Your task to perform on an android device: turn off smart reply in the gmail app Image 0: 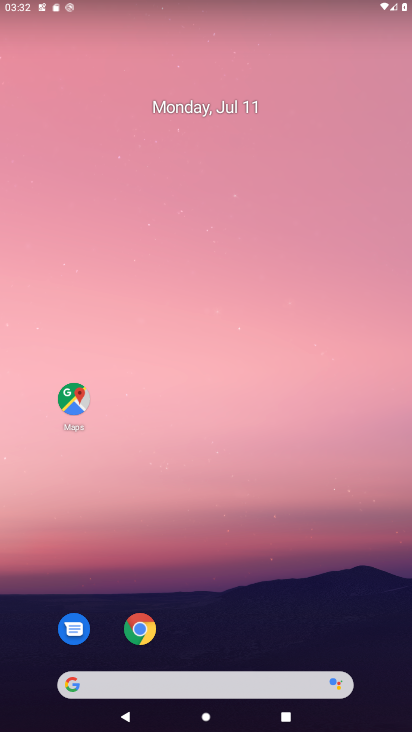
Step 0: press home button
Your task to perform on an android device: turn off smart reply in the gmail app Image 1: 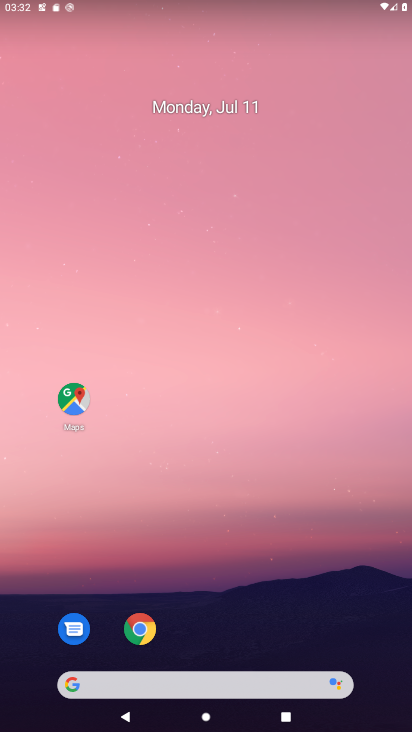
Step 1: drag from (223, 645) to (204, 40)
Your task to perform on an android device: turn off smart reply in the gmail app Image 2: 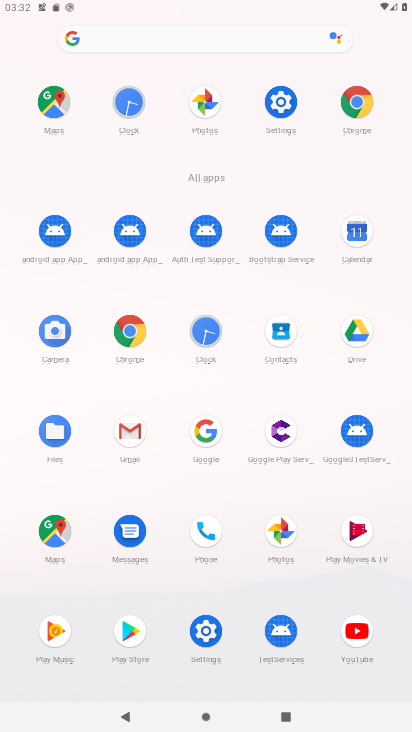
Step 2: click (125, 440)
Your task to perform on an android device: turn off smart reply in the gmail app Image 3: 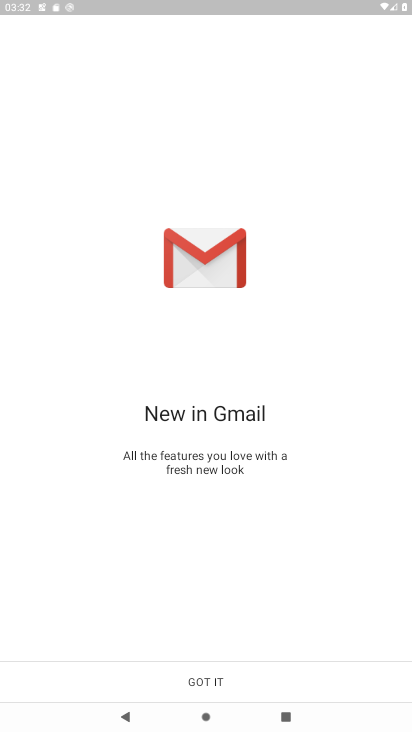
Step 3: click (236, 687)
Your task to perform on an android device: turn off smart reply in the gmail app Image 4: 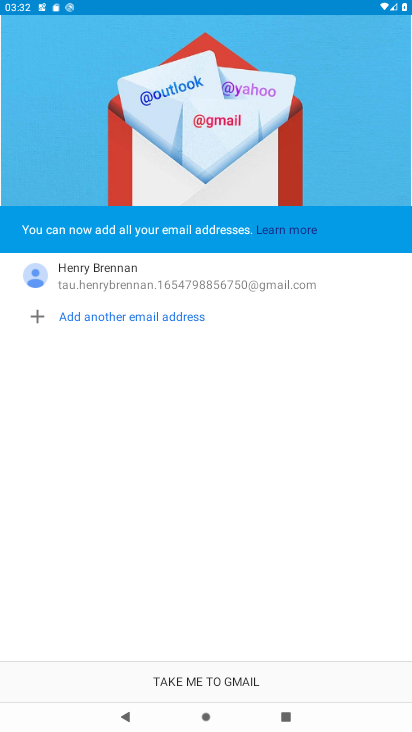
Step 4: click (215, 677)
Your task to perform on an android device: turn off smart reply in the gmail app Image 5: 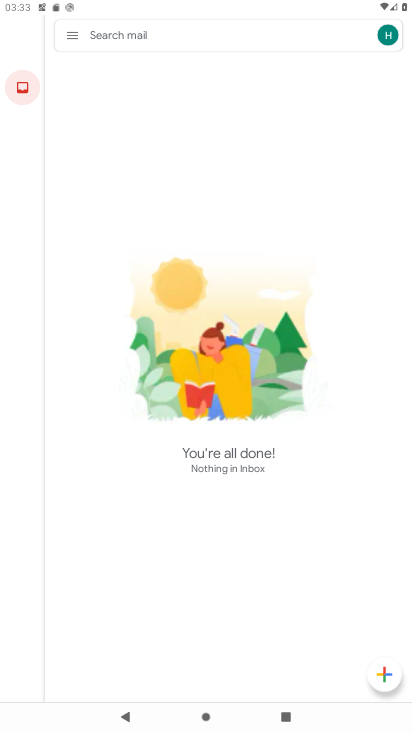
Step 5: click (70, 32)
Your task to perform on an android device: turn off smart reply in the gmail app Image 6: 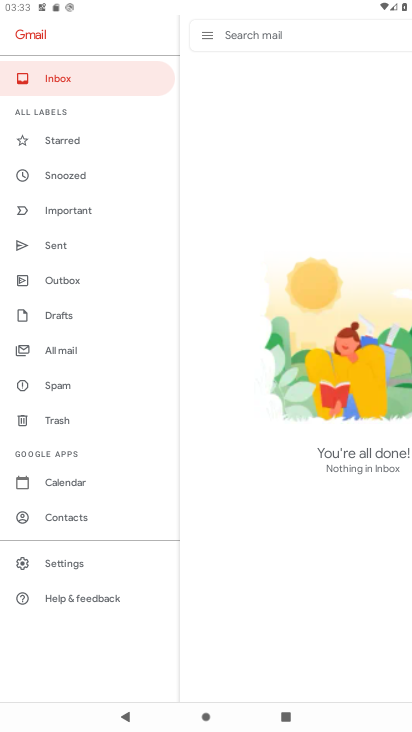
Step 6: click (62, 564)
Your task to perform on an android device: turn off smart reply in the gmail app Image 7: 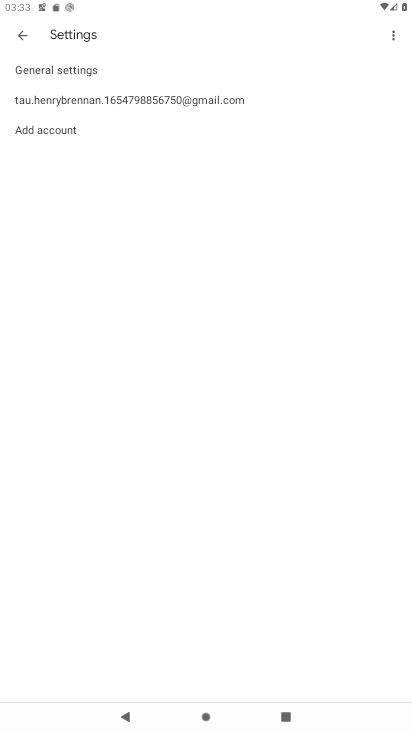
Step 7: click (105, 101)
Your task to perform on an android device: turn off smart reply in the gmail app Image 8: 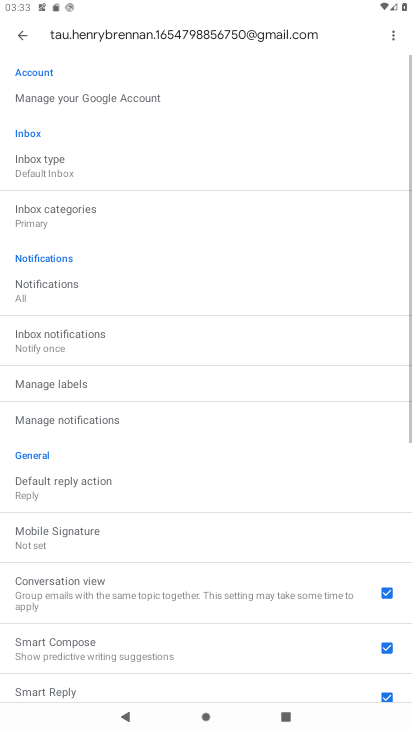
Step 8: drag from (95, 669) to (261, 45)
Your task to perform on an android device: turn off smart reply in the gmail app Image 9: 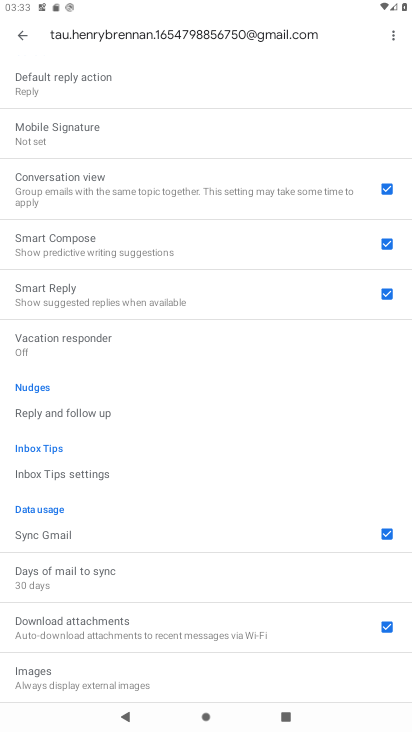
Step 9: click (383, 297)
Your task to perform on an android device: turn off smart reply in the gmail app Image 10: 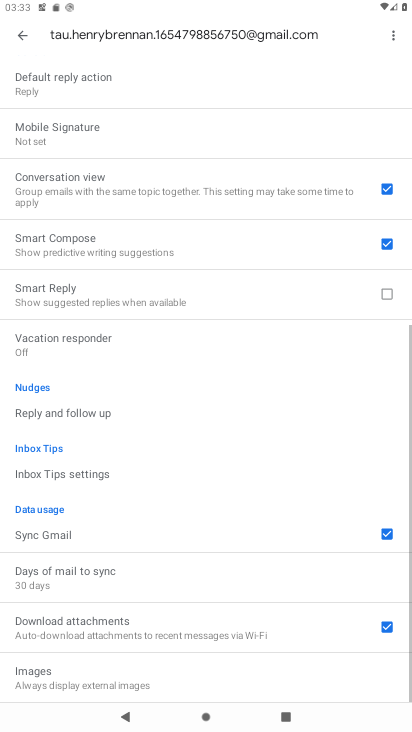
Step 10: task complete